Your task to perform on an android device: Clear the cart on target.com. Search for razer nari on target.com, select the first entry, and add it to the cart. Image 0: 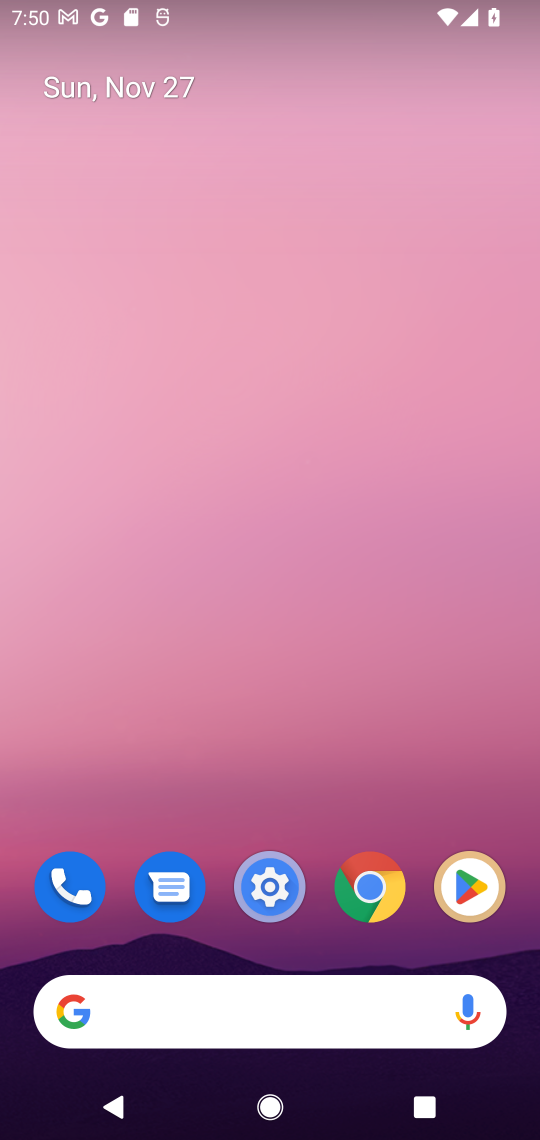
Step 0: click (277, 1007)
Your task to perform on an android device: Clear the cart on target.com. Search for razer nari on target.com, select the first entry, and add it to the cart. Image 1: 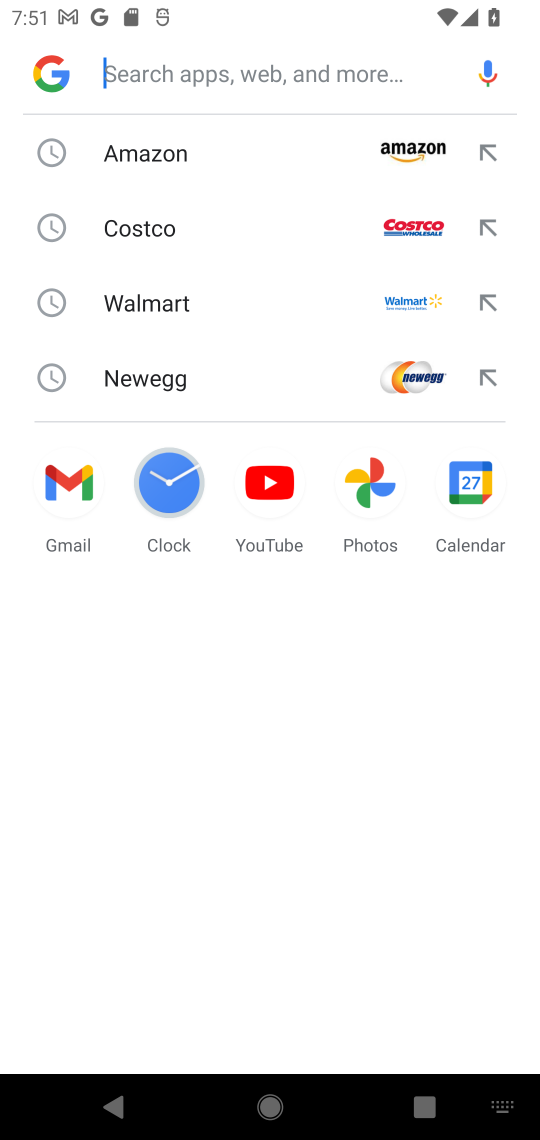
Step 1: type "target"
Your task to perform on an android device: Clear the cart on target.com. Search for razer nari on target.com, select the first entry, and add it to the cart. Image 2: 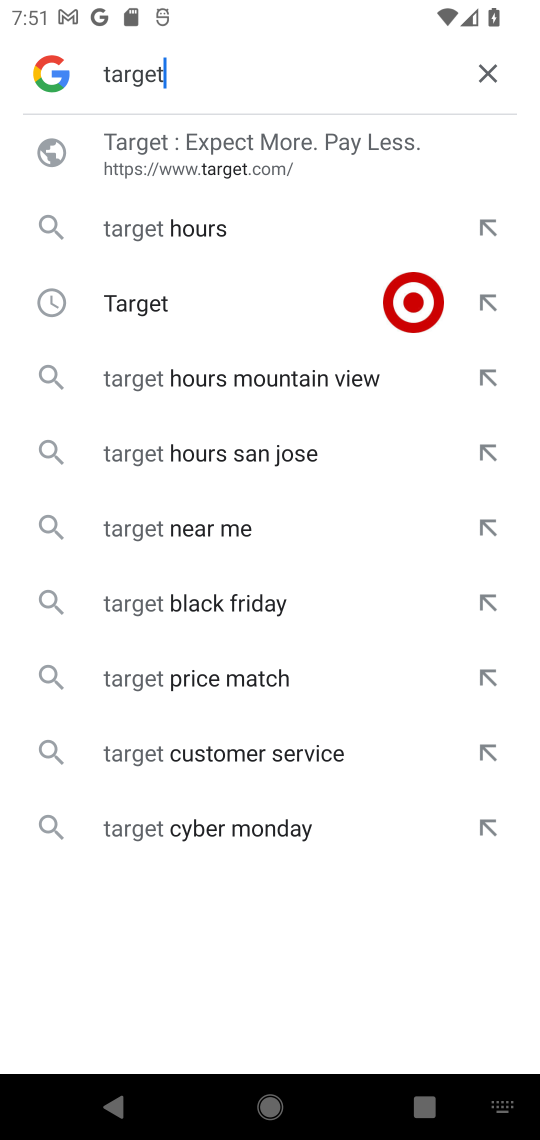
Step 2: click (290, 317)
Your task to perform on an android device: Clear the cart on target.com. Search for razer nari on target.com, select the first entry, and add it to the cart. Image 3: 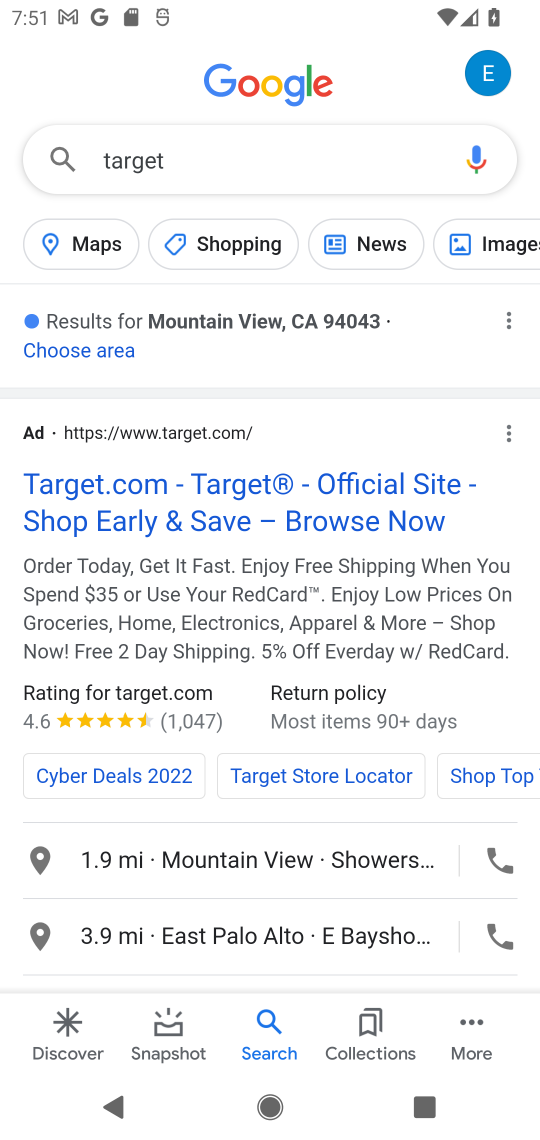
Step 3: click (252, 483)
Your task to perform on an android device: Clear the cart on target.com. Search for razer nari on target.com, select the first entry, and add it to the cart. Image 4: 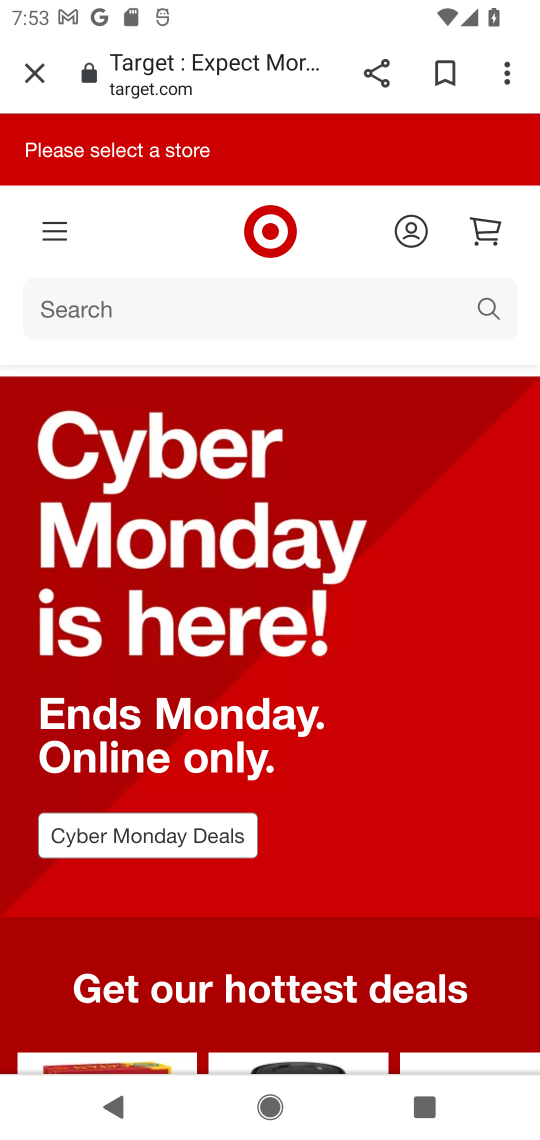
Step 4: click (306, 318)
Your task to perform on an android device: Clear the cart on target.com. Search for razer nari on target.com, select the first entry, and add it to the cart. Image 5: 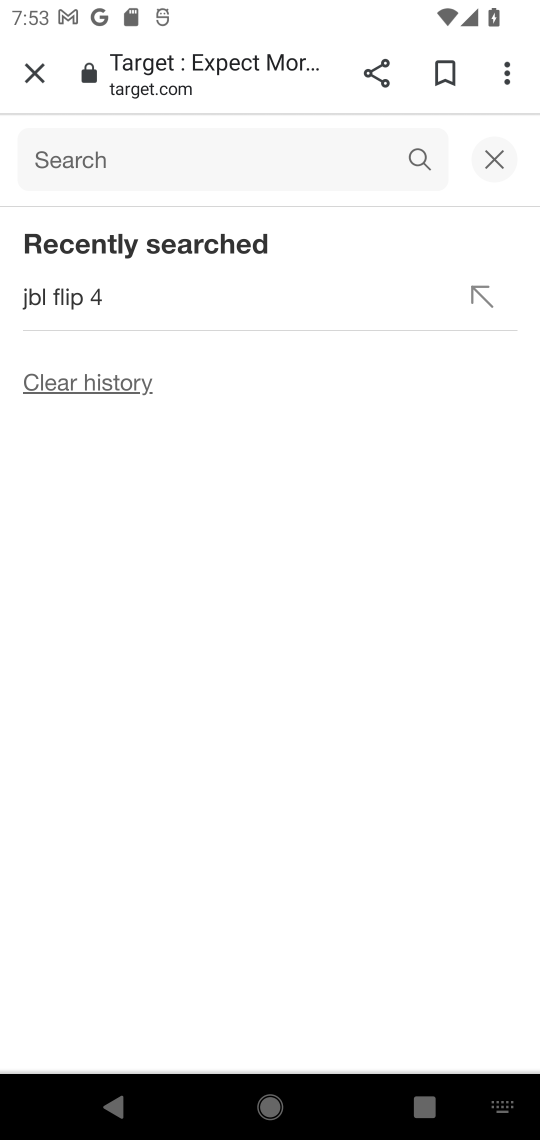
Step 5: type "razer nari"
Your task to perform on an android device: Clear the cart on target.com. Search for razer nari on target.com, select the first entry, and add it to the cart. Image 6: 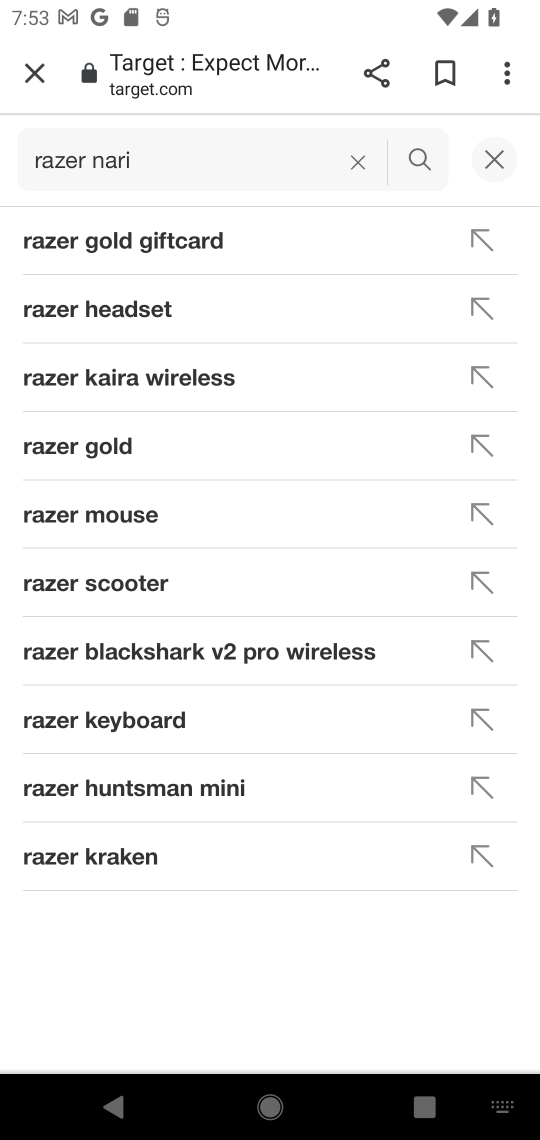
Step 6: click (429, 154)
Your task to perform on an android device: Clear the cart on target.com. Search for razer nari on target.com, select the first entry, and add it to the cart. Image 7: 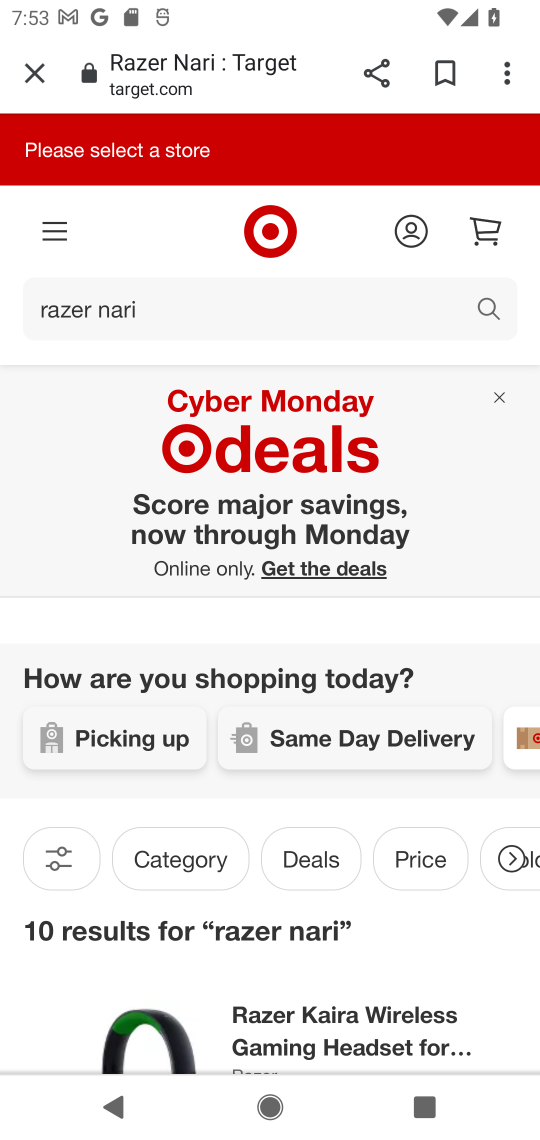
Step 7: task complete